Your task to perform on an android device: Add "logitech g pro" to the cart on newegg, then select checkout. Image 0: 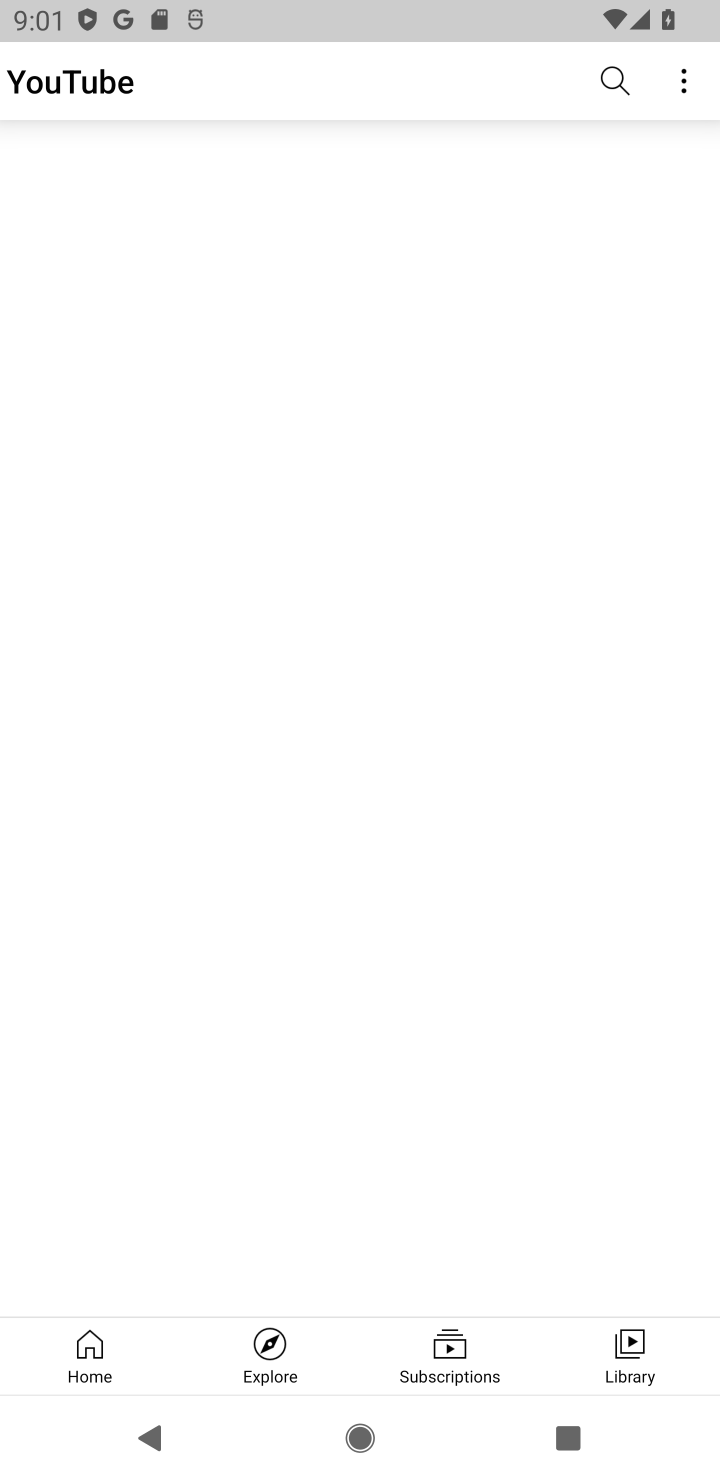
Step 0: press home button
Your task to perform on an android device: Add "logitech g pro" to the cart on newegg, then select checkout. Image 1: 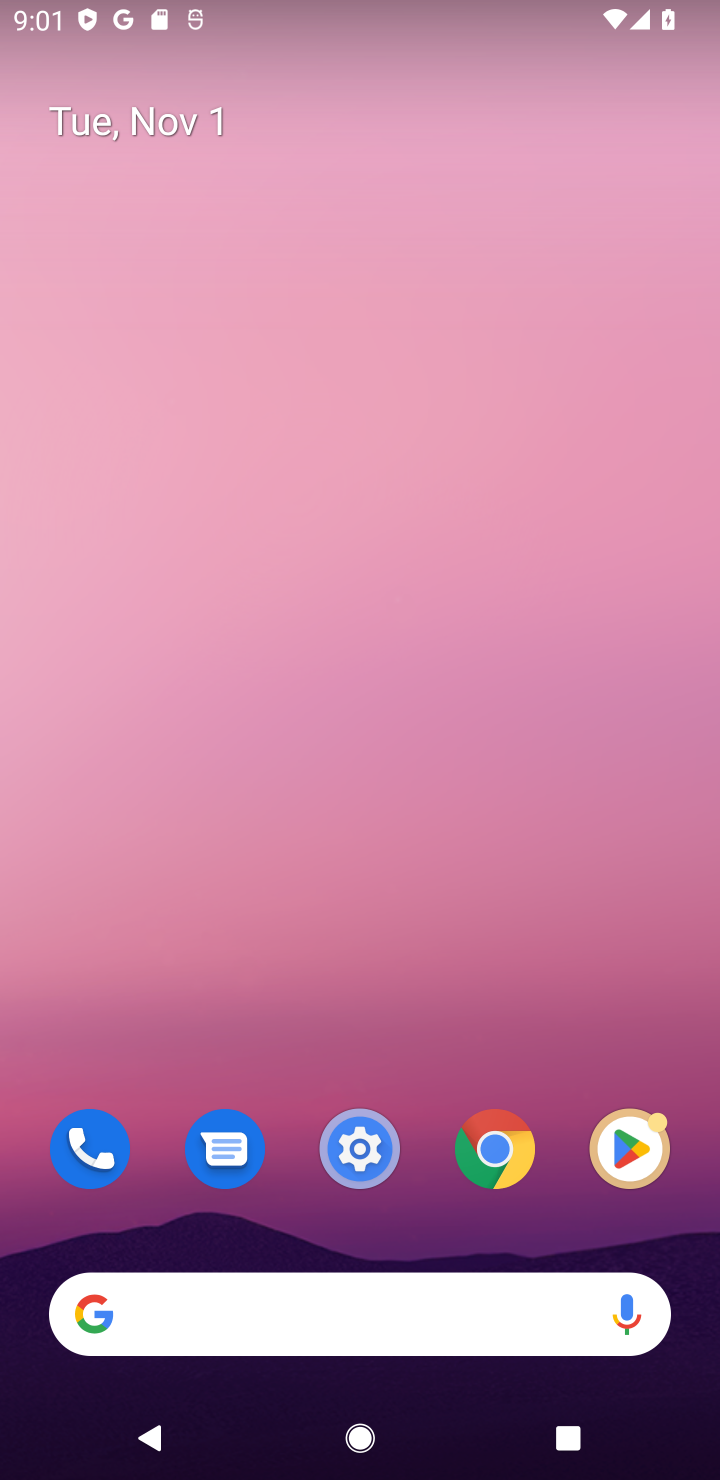
Step 1: press home button
Your task to perform on an android device: Add "logitech g pro" to the cart on newegg, then select checkout. Image 2: 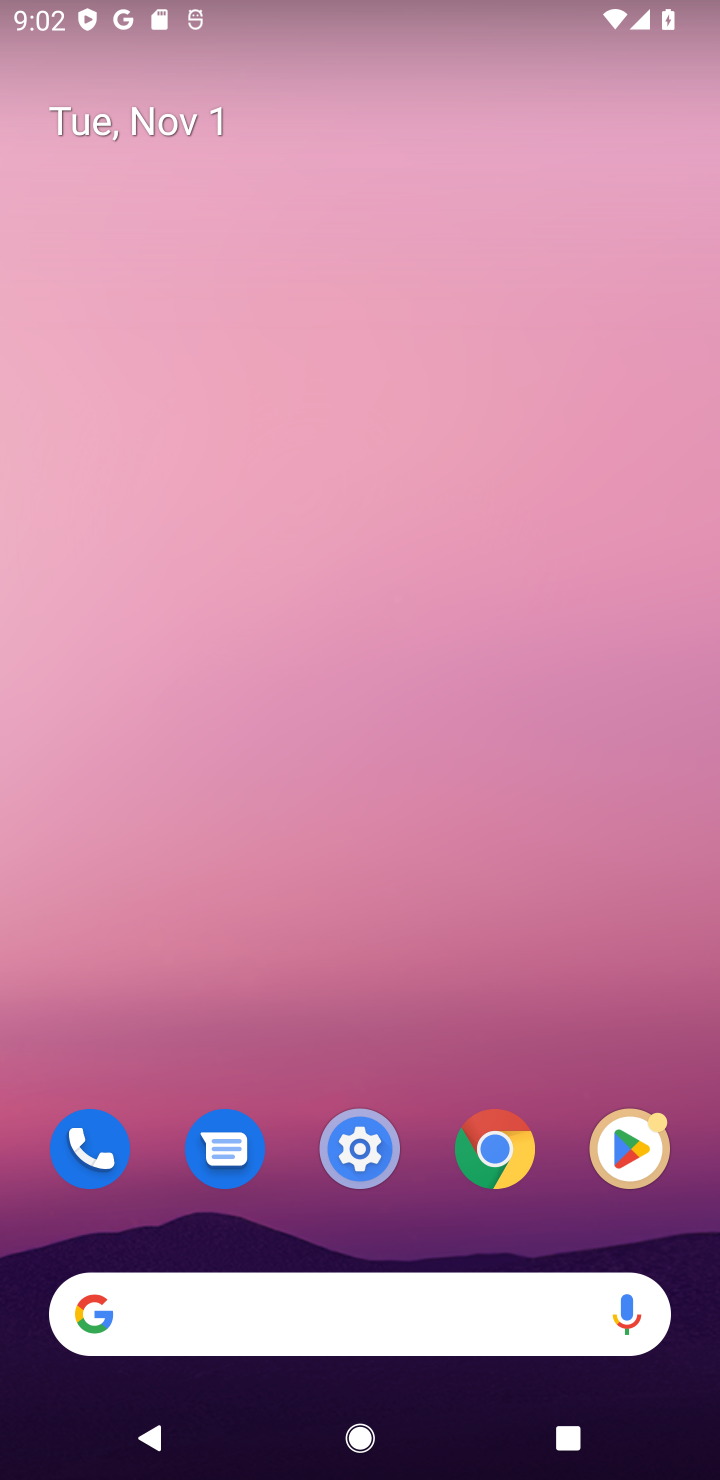
Step 2: click (137, 1311)
Your task to perform on an android device: Add "logitech g pro" to the cart on newegg, then select checkout. Image 3: 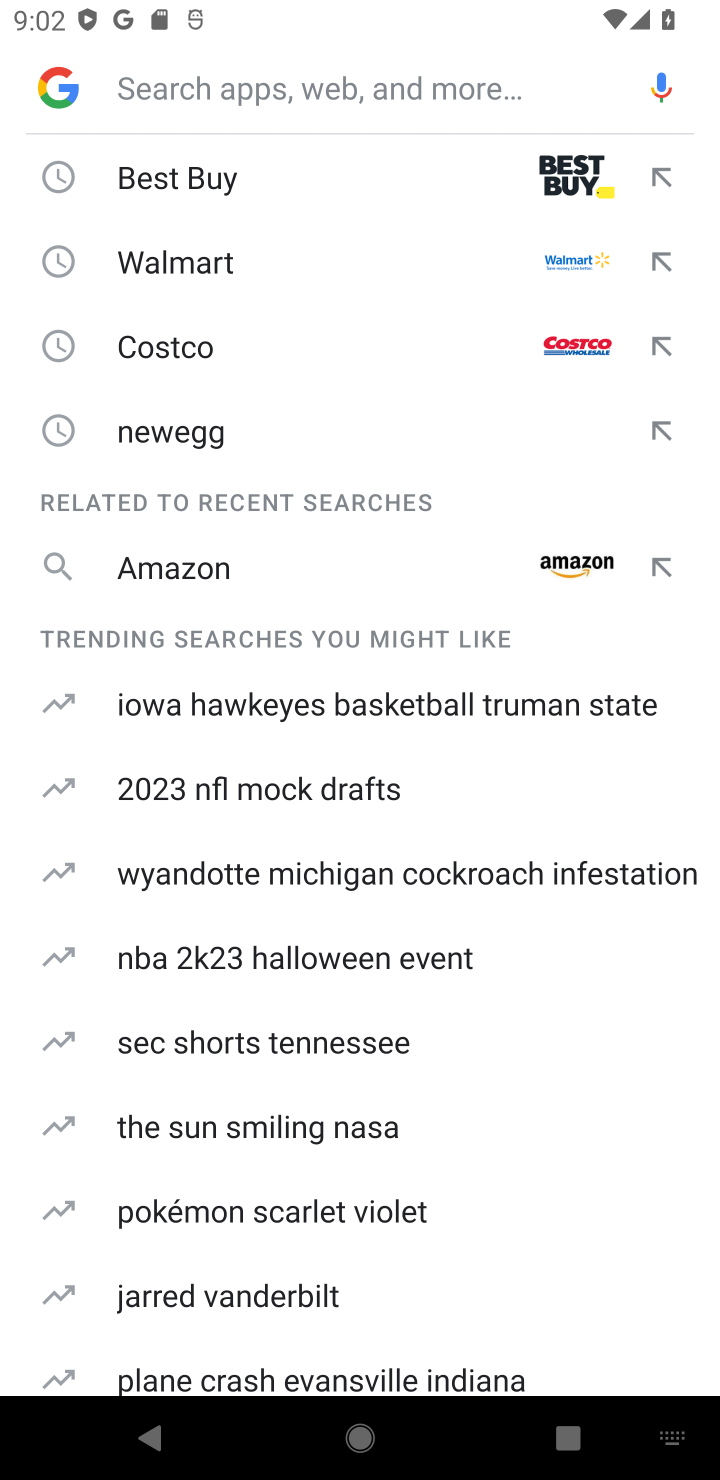
Step 3: type "newegg"
Your task to perform on an android device: Add "logitech g pro" to the cart on newegg, then select checkout. Image 4: 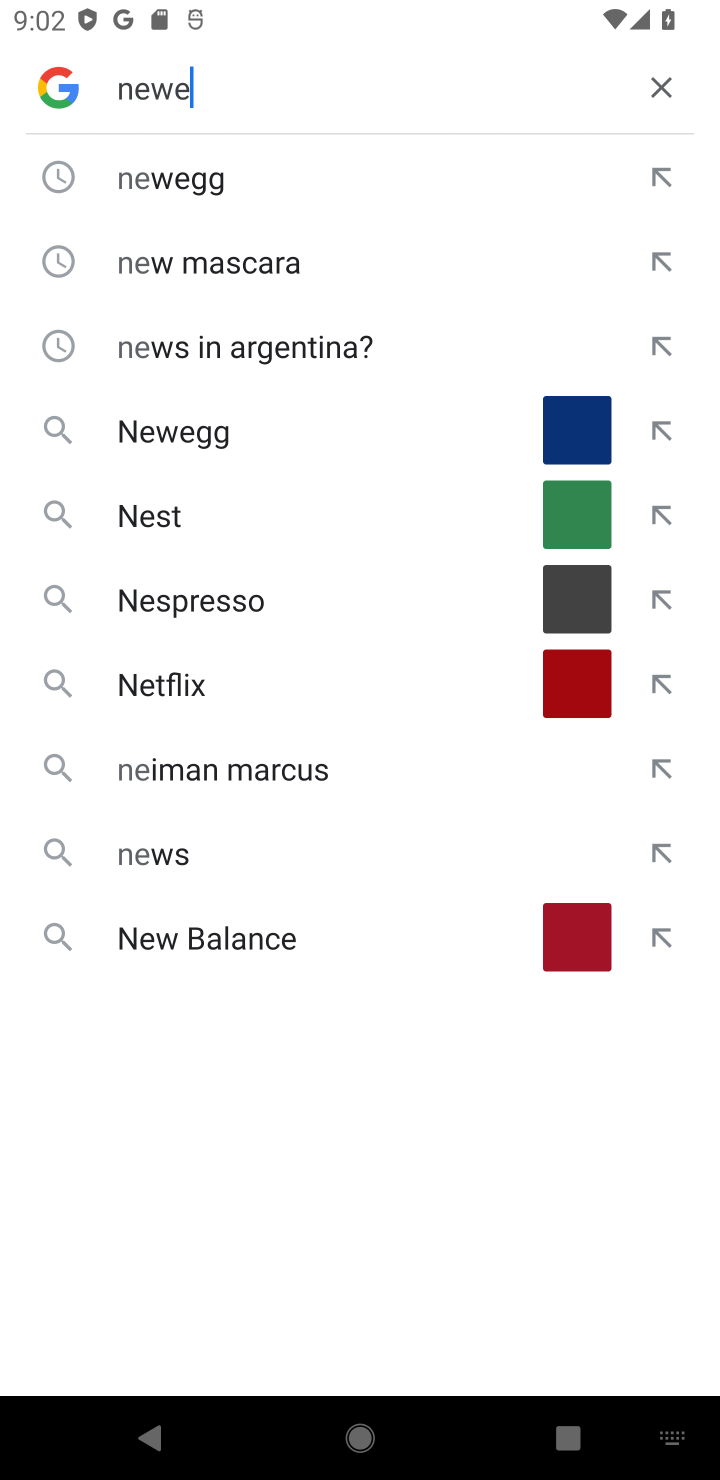
Step 4: press enter
Your task to perform on an android device: Add "logitech g pro" to the cart on newegg, then select checkout. Image 5: 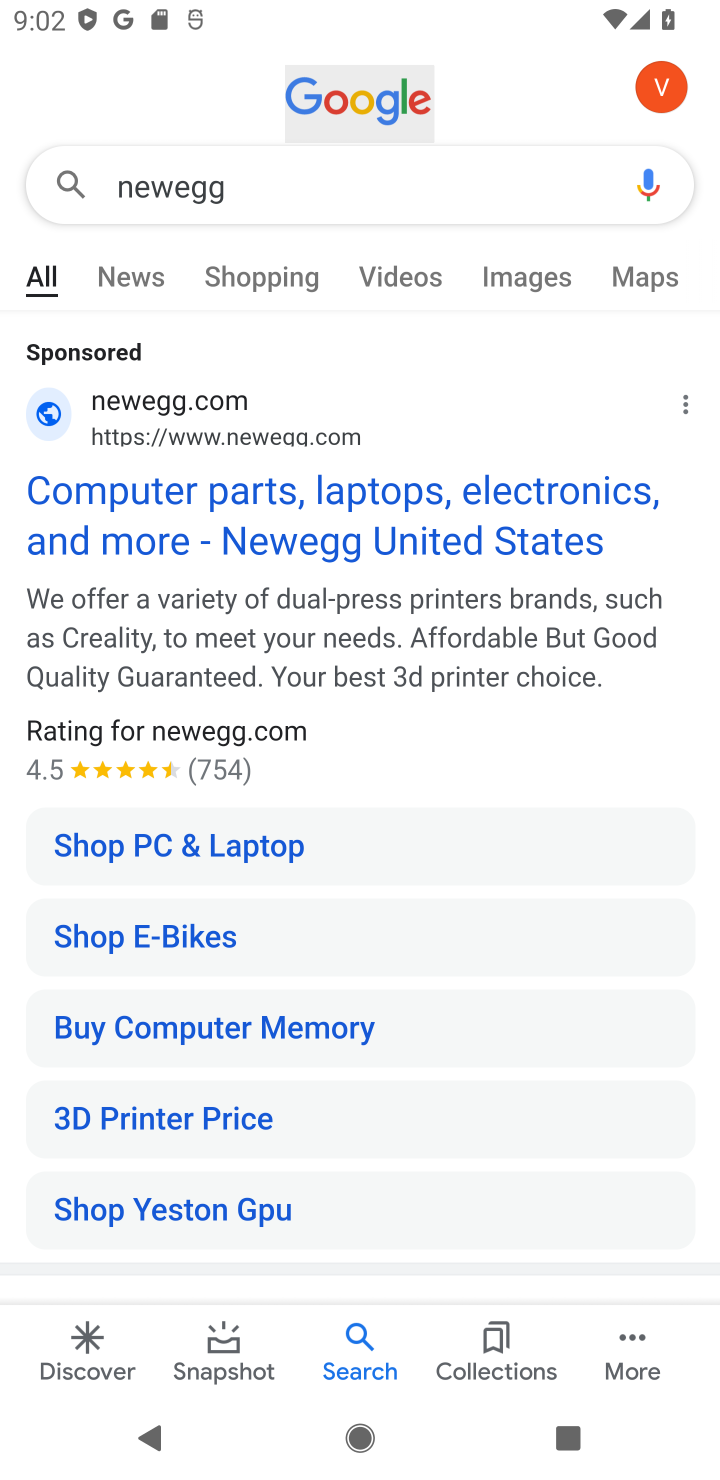
Step 5: drag from (498, 1081) to (580, 448)
Your task to perform on an android device: Add "logitech g pro" to the cart on newegg, then select checkout. Image 6: 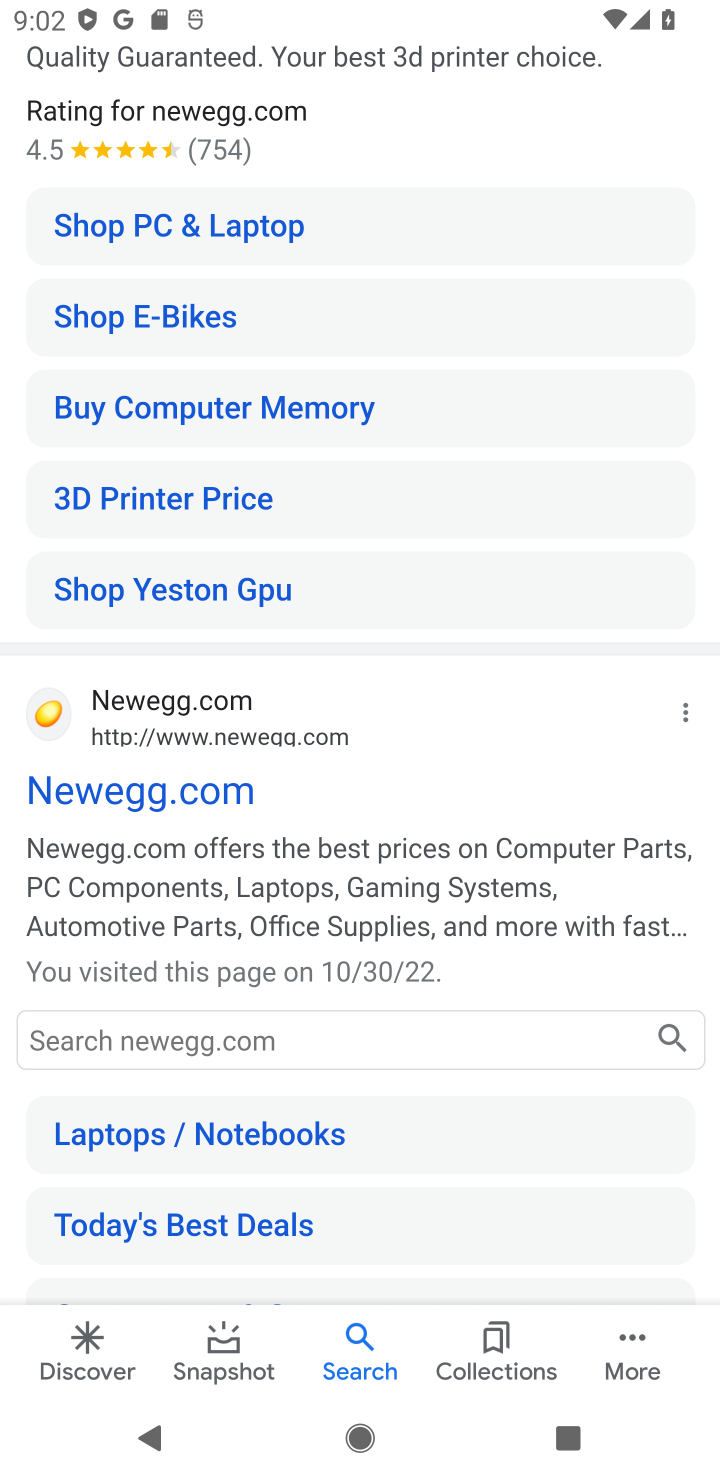
Step 6: click (147, 797)
Your task to perform on an android device: Add "logitech g pro" to the cart on newegg, then select checkout. Image 7: 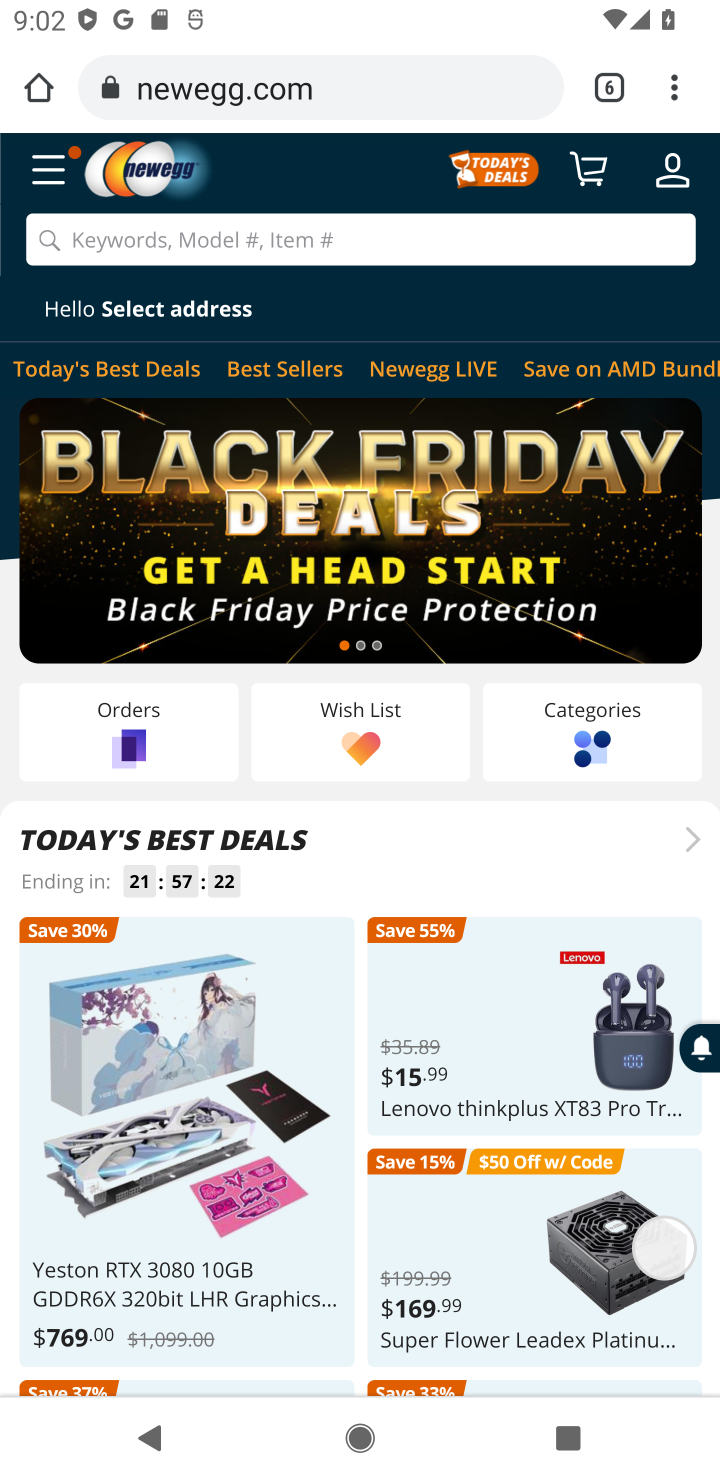
Step 7: click (120, 242)
Your task to perform on an android device: Add "logitech g pro" to the cart on newegg, then select checkout. Image 8: 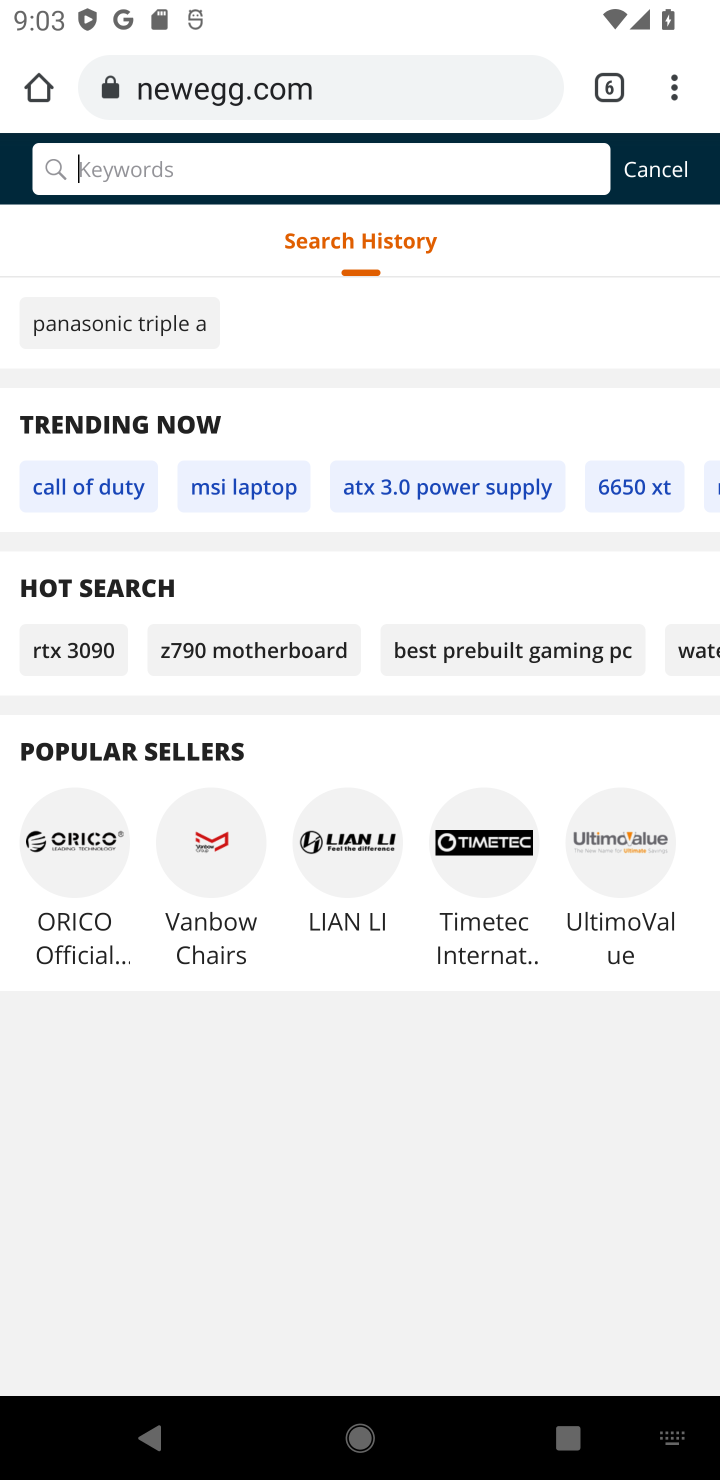
Step 8: type "logitech g pro"
Your task to perform on an android device: Add "logitech g pro" to the cart on newegg, then select checkout. Image 9: 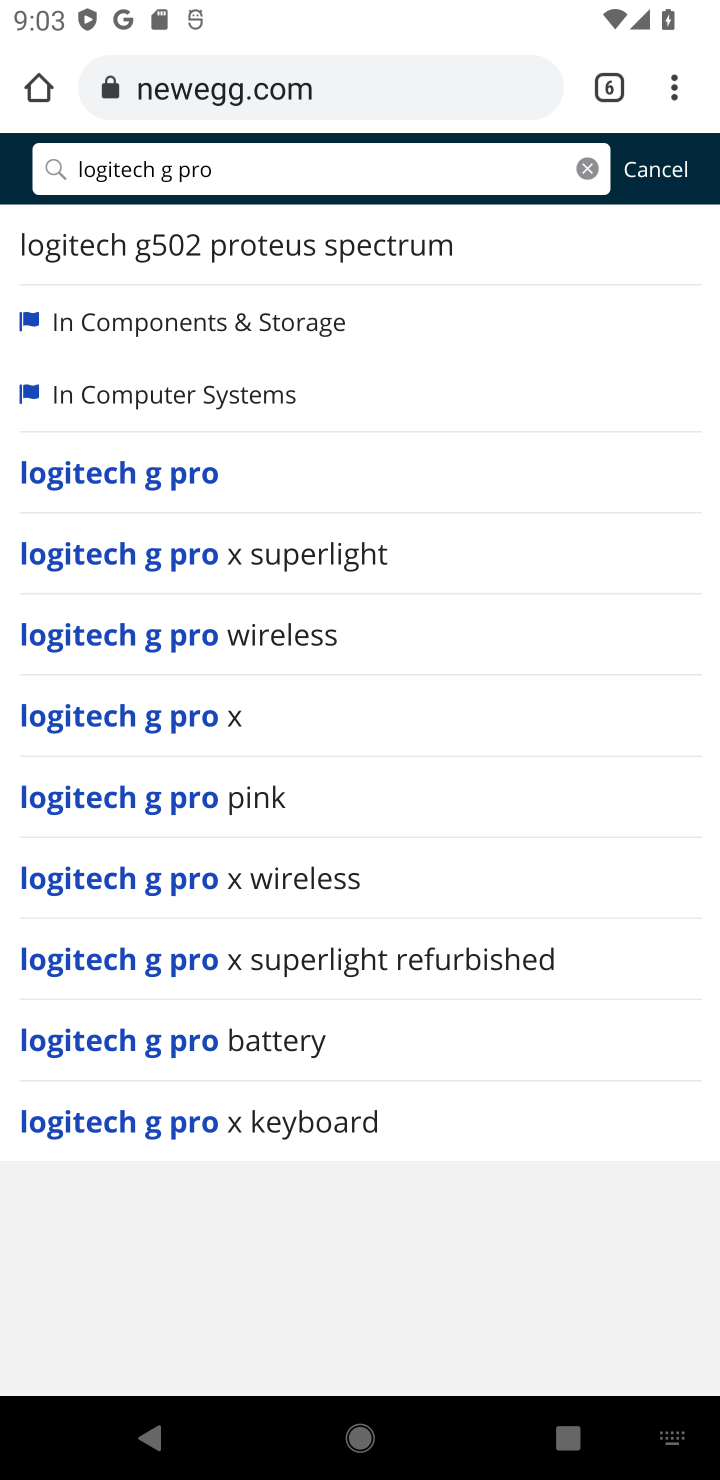
Step 9: click (166, 485)
Your task to perform on an android device: Add "logitech g pro" to the cart on newegg, then select checkout. Image 10: 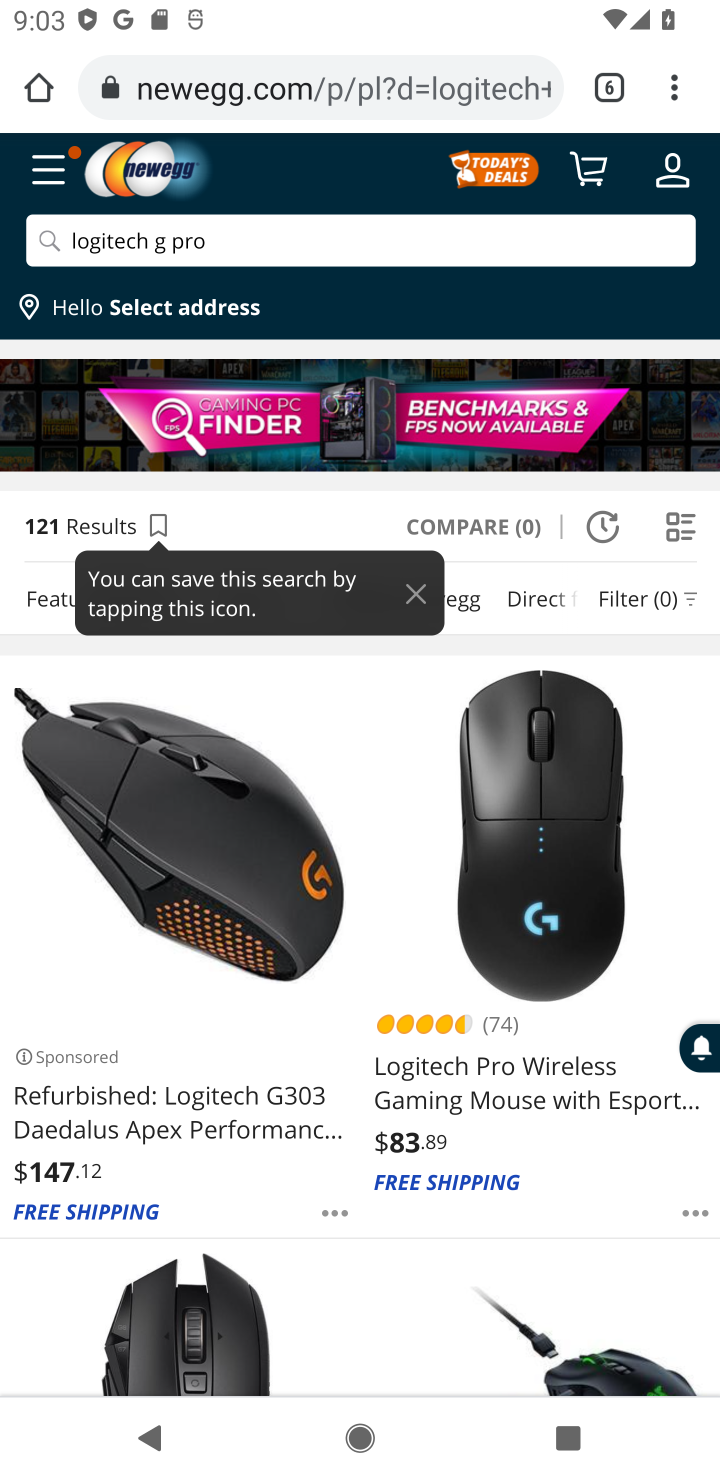
Step 10: click (488, 1080)
Your task to perform on an android device: Add "logitech g pro" to the cart on newegg, then select checkout. Image 11: 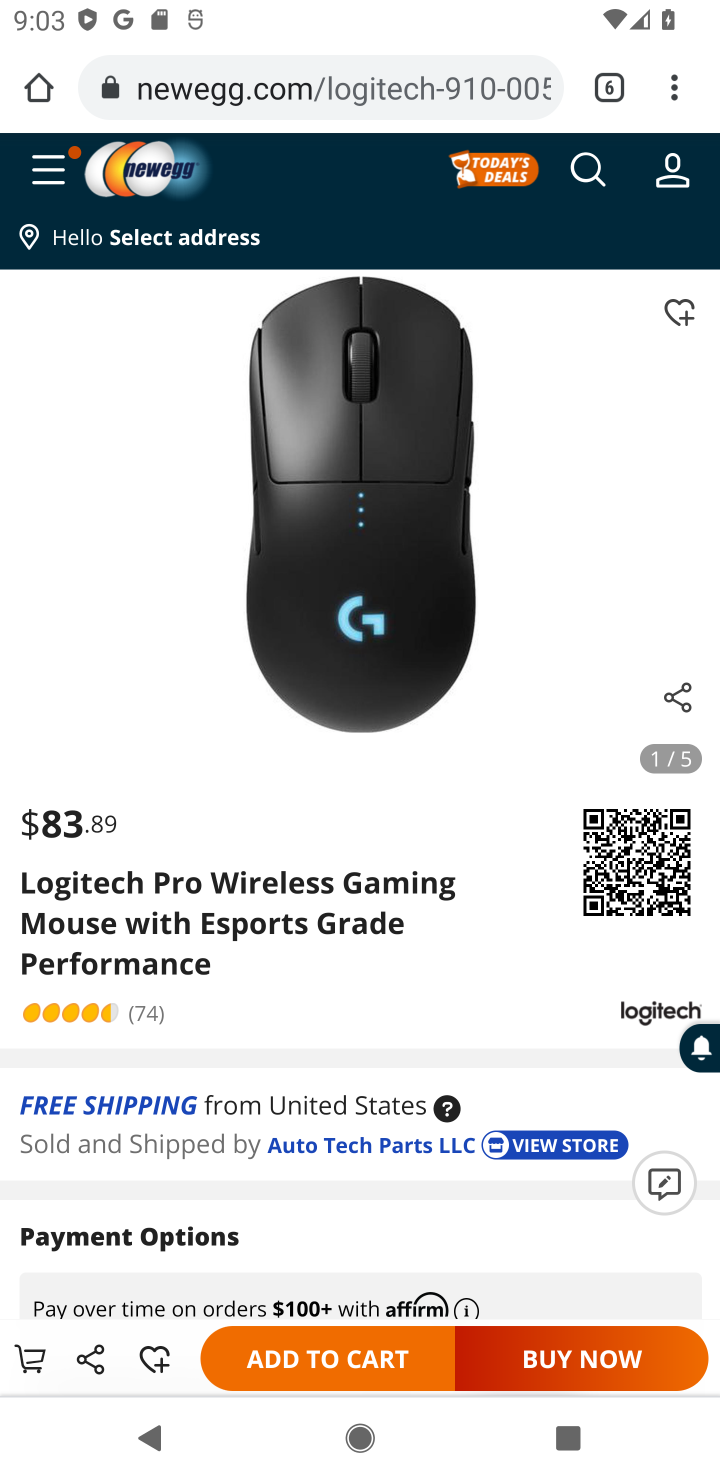
Step 11: click (334, 1355)
Your task to perform on an android device: Add "logitech g pro" to the cart on newegg, then select checkout. Image 12: 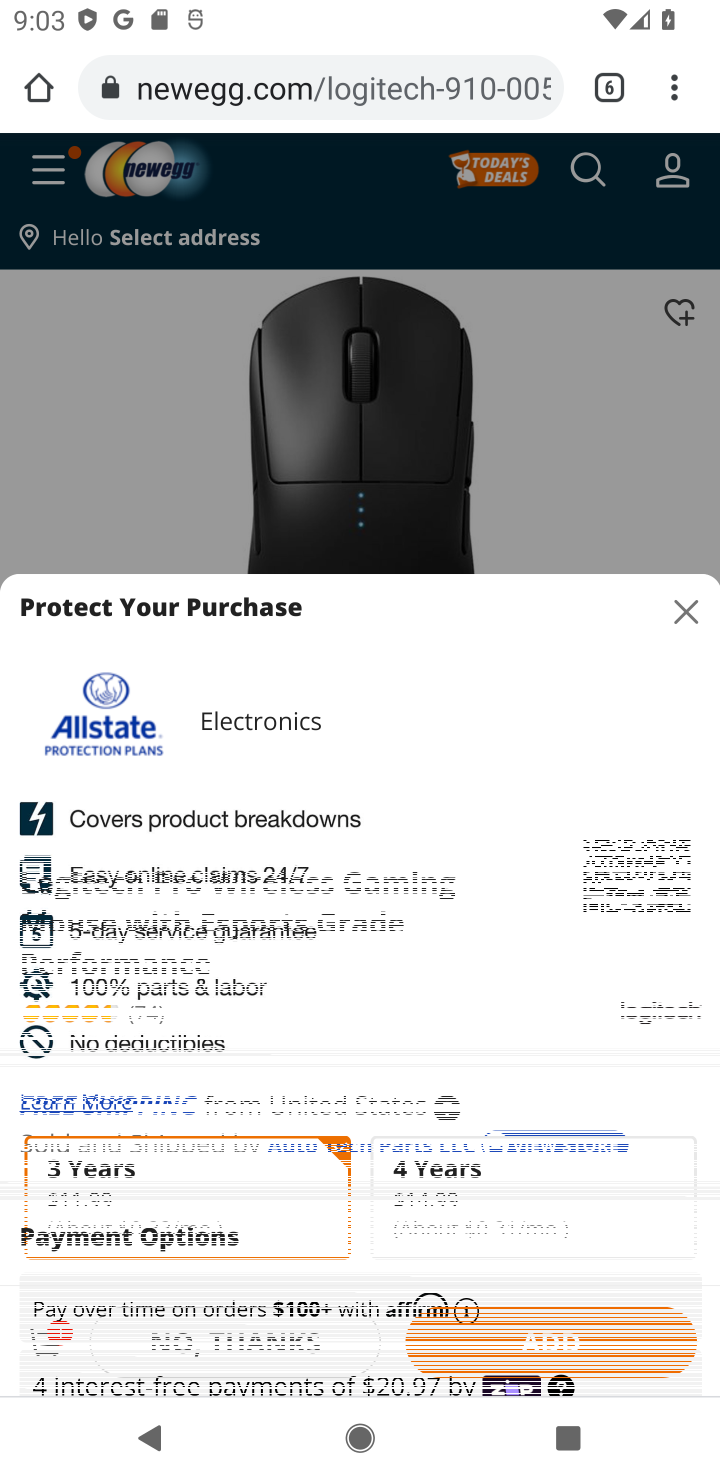
Step 12: click (523, 1333)
Your task to perform on an android device: Add "logitech g pro" to the cart on newegg, then select checkout. Image 13: 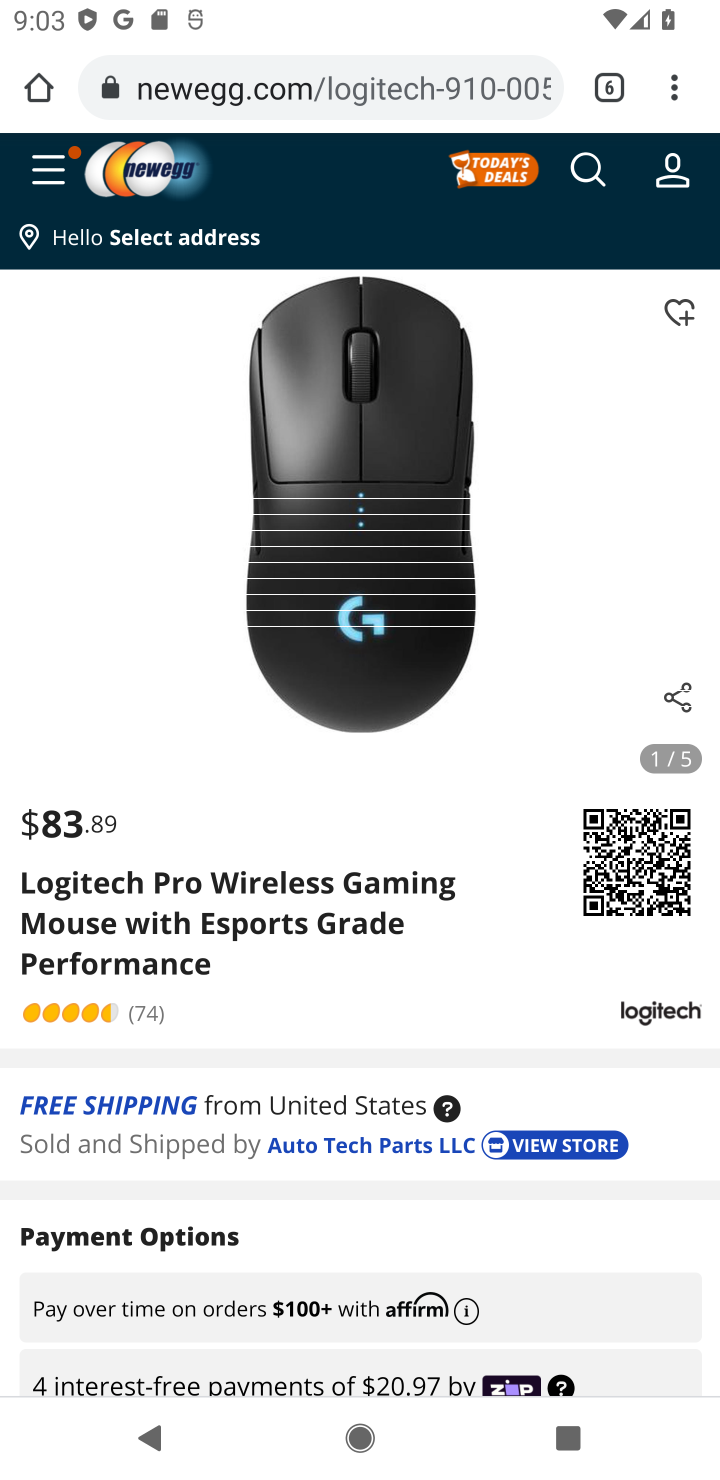
Step 13: click (32, 1355)
Your task to perform on an android device: Add "logitech g pro" to the cart on newegg, then select checkout. Image 14: 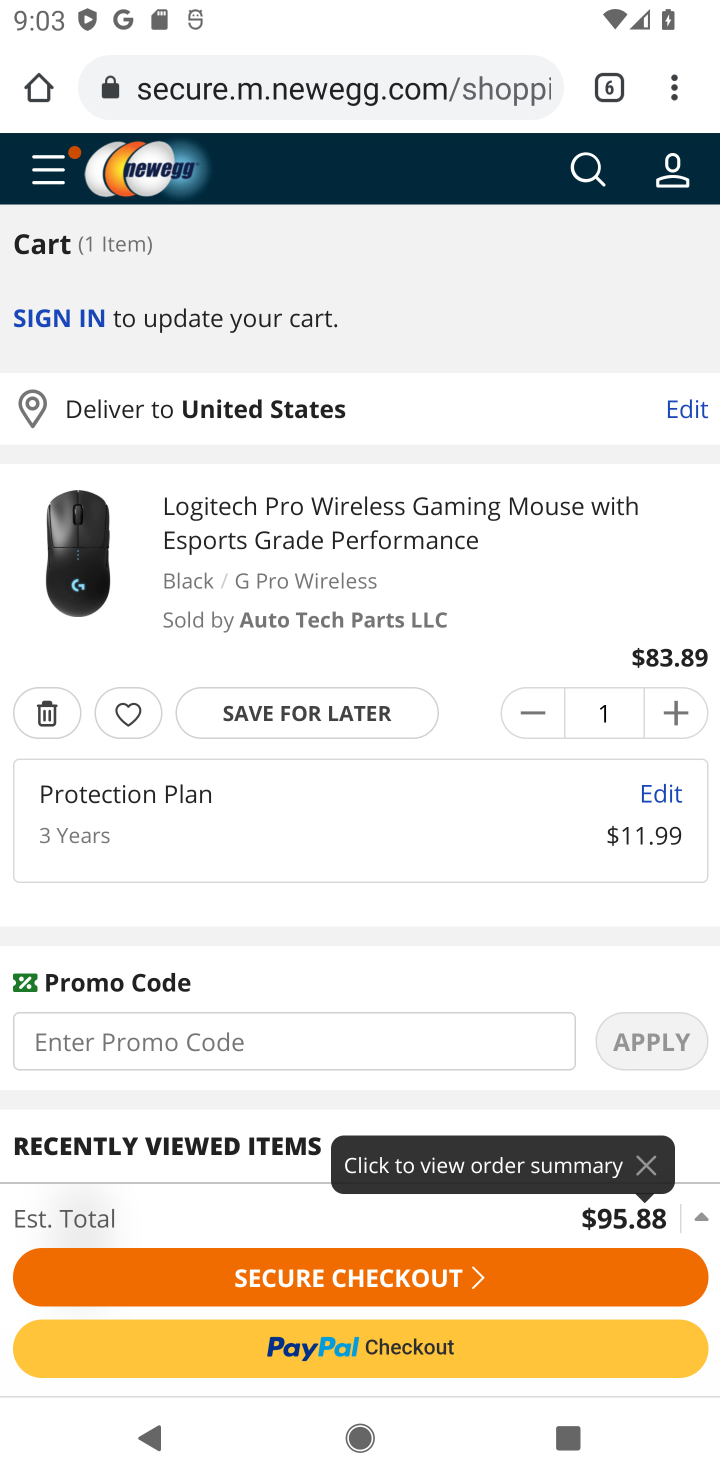
Step 14: click (362, 1199)
Your task to perform on an android device: Add "logitech g pro" to the cart on newegg, then select checkout. Image 15: 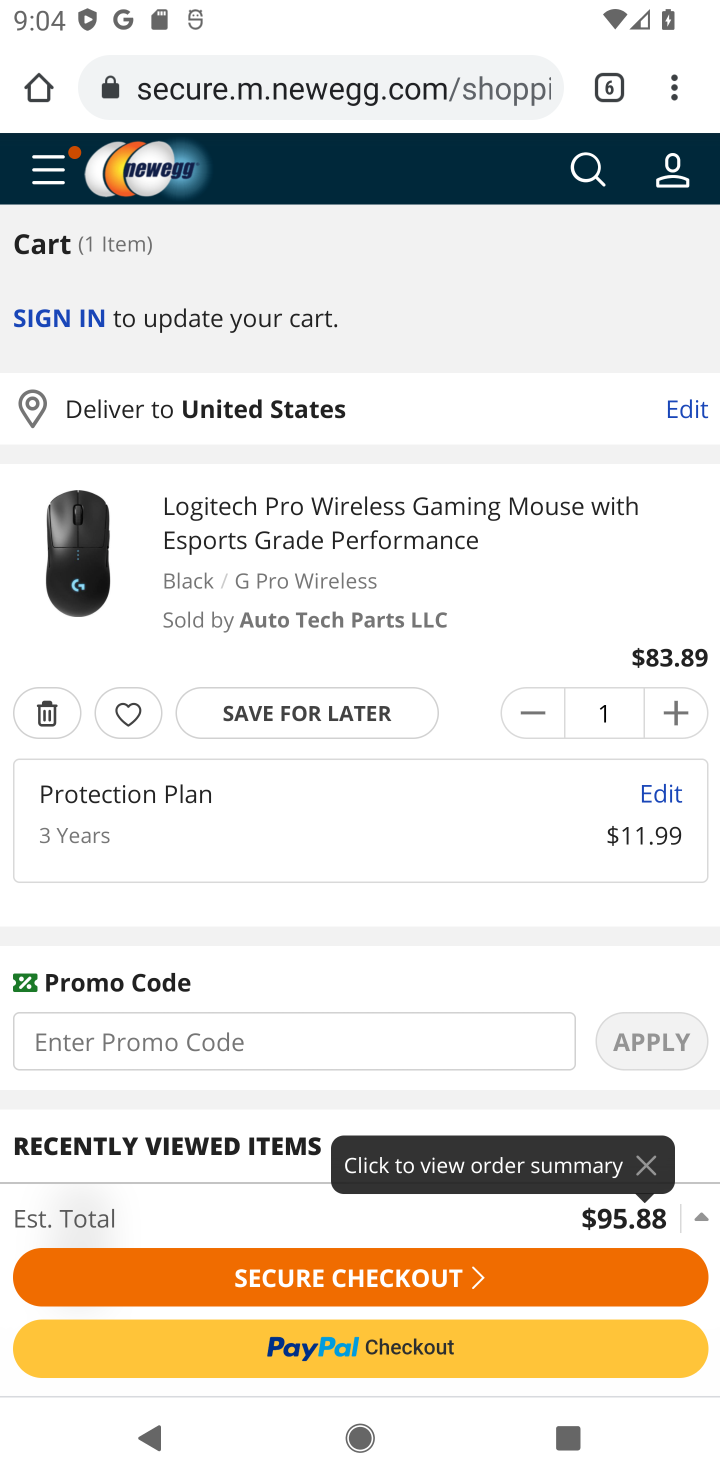
Step 15: task complete